Your task to perform on an android device: change keyboard looks Image 0: 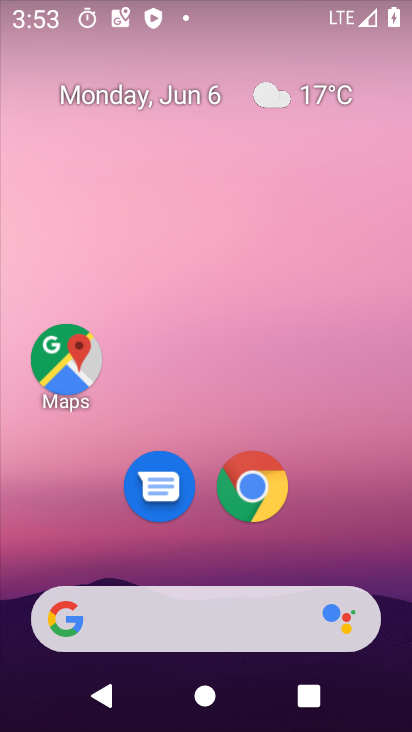
Step 0: drag from (326, 545) to (331, 143)
Your task to perform on an android device: change keyboard looks Image 1: 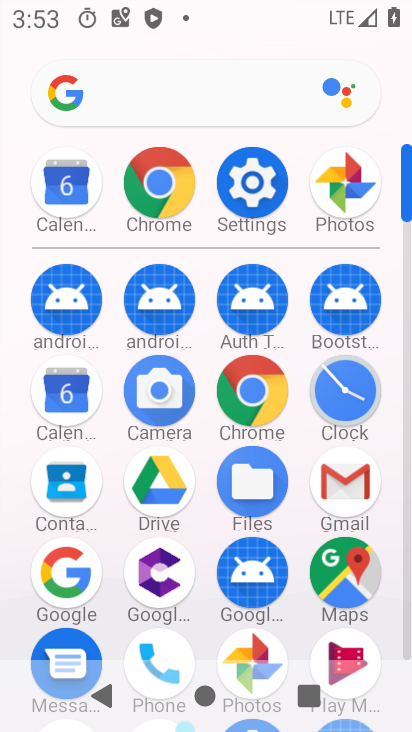
Step 1: click (248, 189)
Your task to perform on an android device: change keyboard looks Image 2: 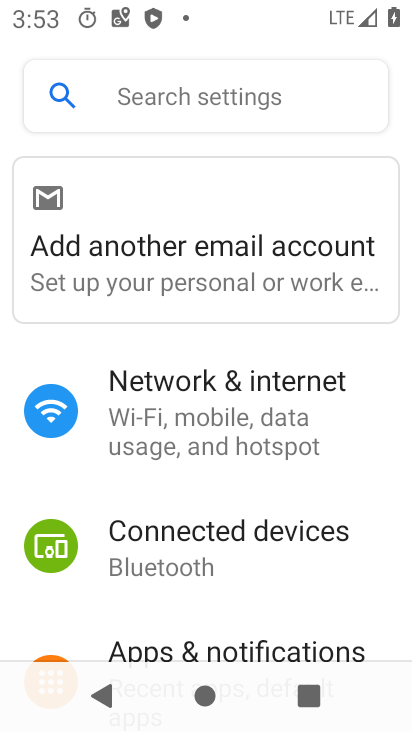
Step 2: drag from (247, 571) to (275, 135)
Your task to perform on an android device: change keyboard looks Image 3: 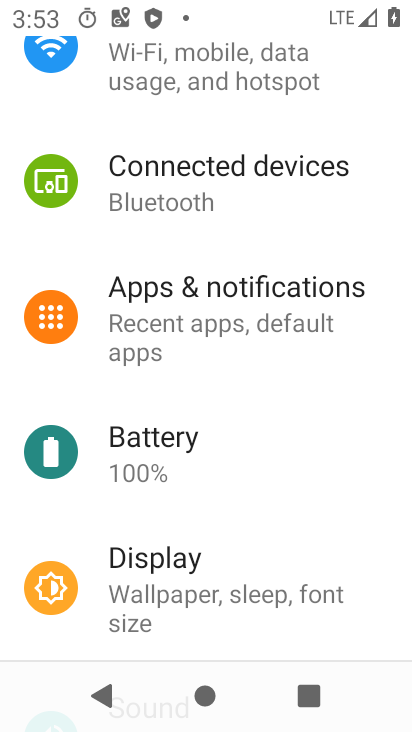
Step 3: drag from (278, 477) to (294, 236)
Your task to perform on an android device: change keyboard looks Image 4: 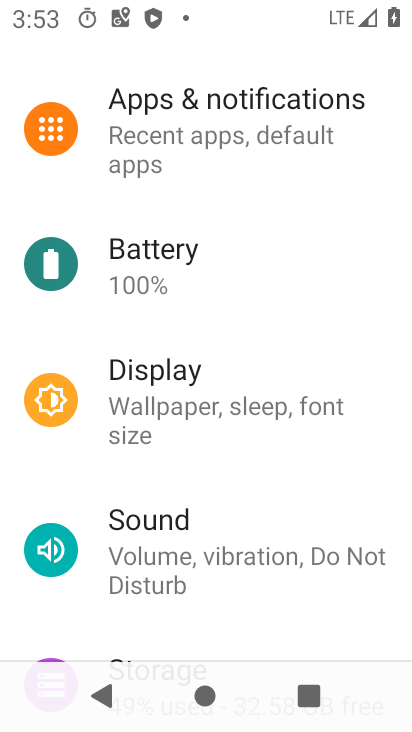
Step 4: drag from (263, 551) to (312, 141)
Your task to perform on an android device: change keyboard looks Image 5: 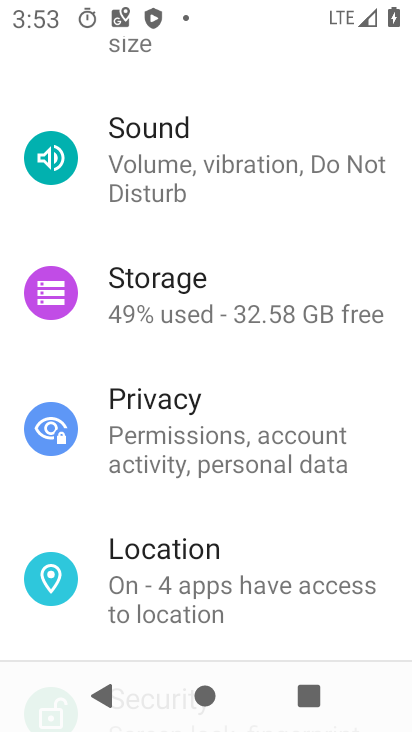
Step 5: drag from (252, 528) to (342, 156)
Your task to perform on an android device: change keyboard looks Image 6: 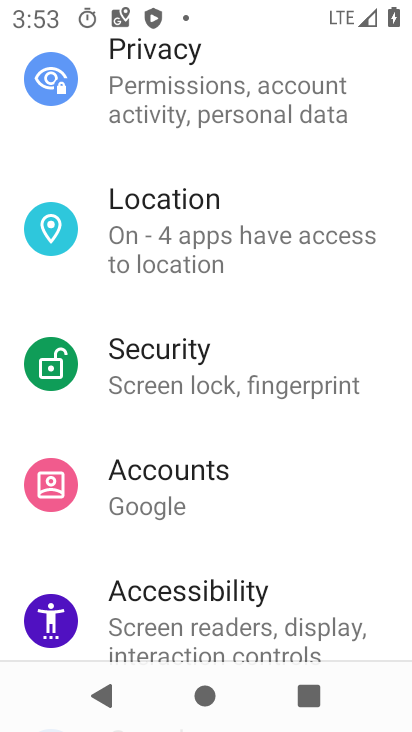
Step 6: drag from (277, 434) to (321, 168)
Your task to perform on an android device: change keyboard looks Image 7: 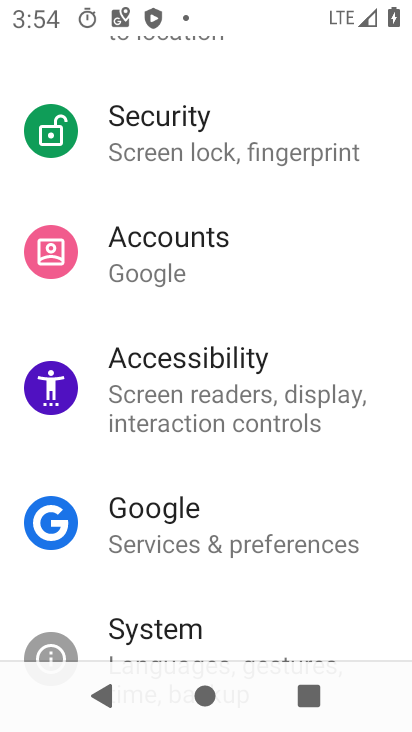
Step 7: drag from (229, 511) to (294, 253)
Your task to perform on an android device: change keyboard looks Image 8: 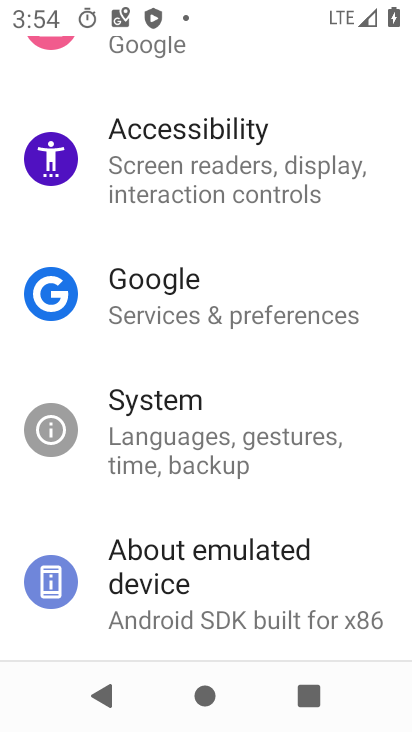
Step 8: drag from (206, 503) to (297, 284)
Your task to perform on an android device: change keyboard looks Image 9: 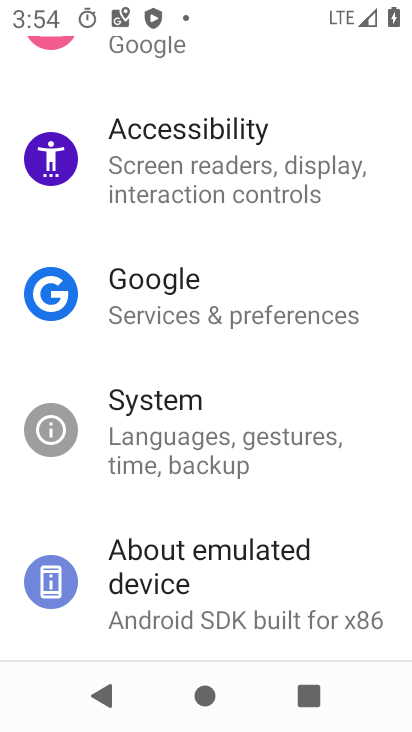
Step 9: drag from (209, 438) to (234, 373)
Your task to perform on an android device: change keyboard looks Image 10: 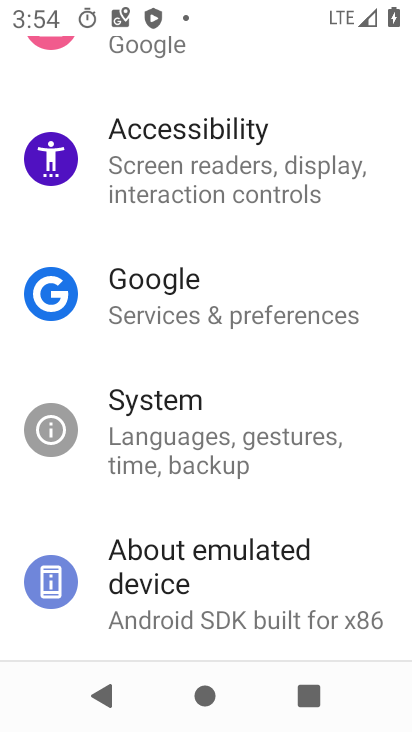
Step 10: click (203, 404)
Your task to perform on an android device: change keyboard looks Image 11: 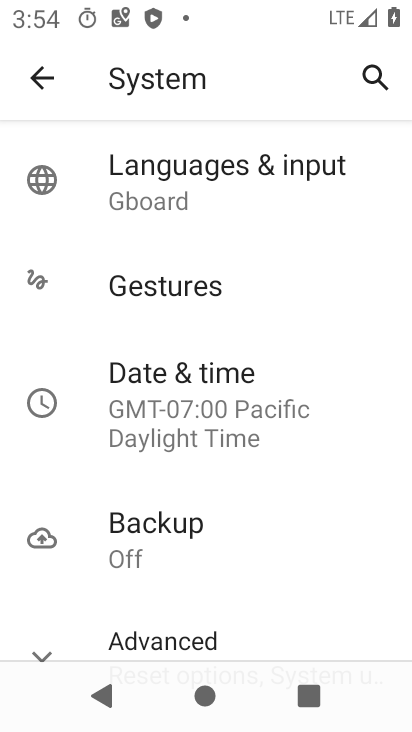
Step 11: click (216, 177)
Your task to perform on an android device: change keyboard looks Image 12: 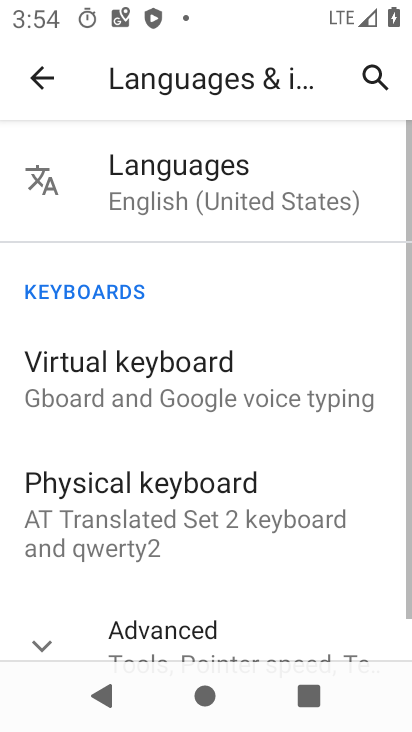
Step 12: click (233, 396)
Your task to perform on an android device: change keyboard looks Image 13: 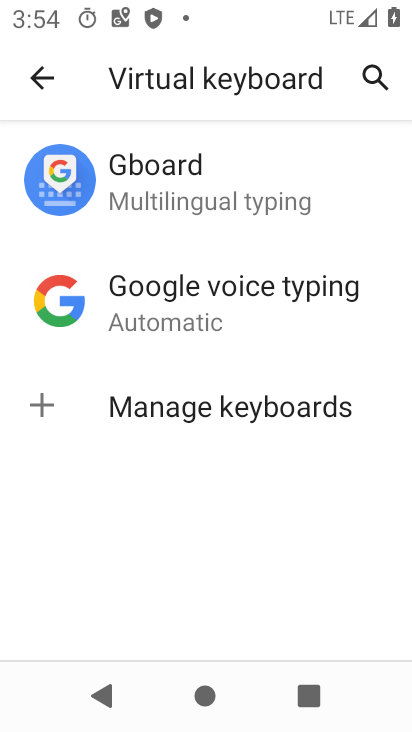
Step 13: click (194, 180)
Your task to perform on an android device: change keyboard looks Image 14: 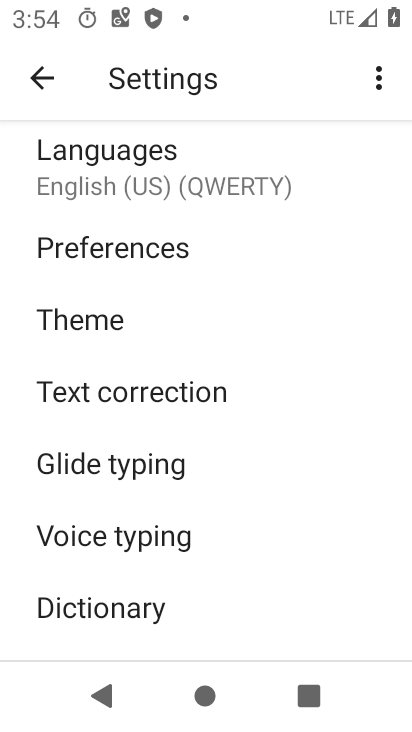
Step 14: click (202, 359)
Your task to perform on an android device: change keyboard looks Image 15: 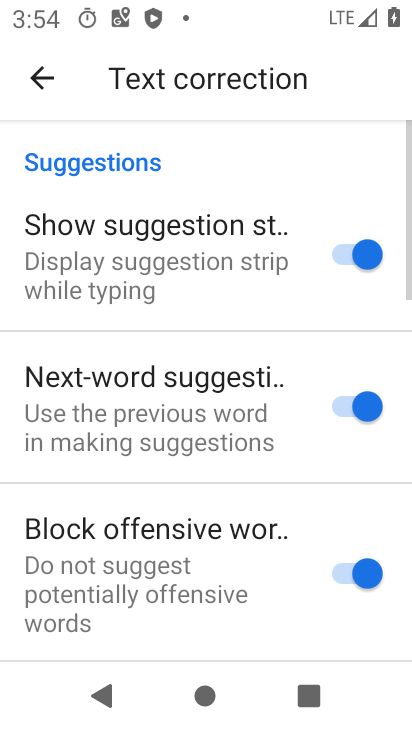
Step 15: click (40, 91)
Your task to perform on an android device: change keyboard looks Image 16: 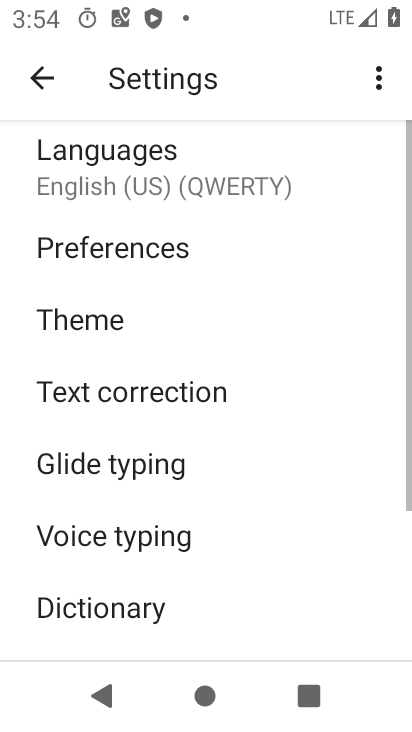
Step 16: click (124, 338)
Your task to perform on an android device: change keyboard looks Image 17: 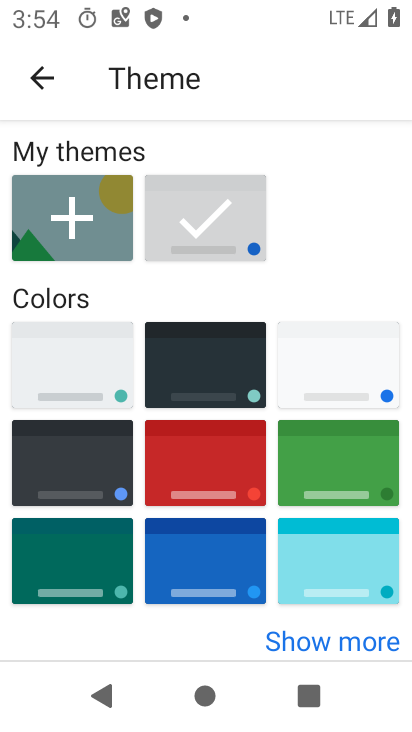
Step 17: click (54, 354)
Your task to perform on an android device: change keyboard looks Image 18: 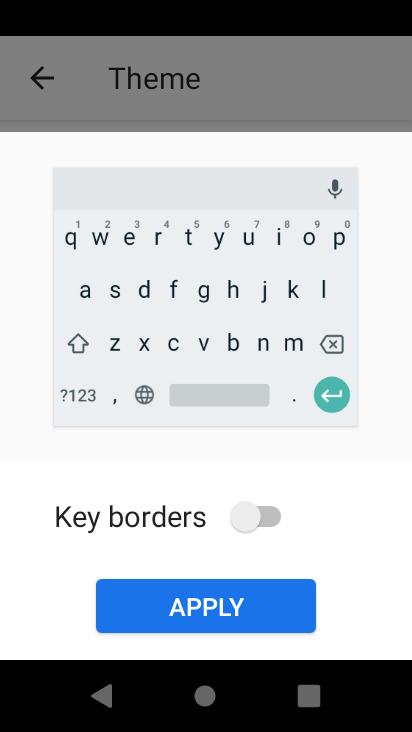
Step 18: click (242, 618)
Your task to perform on an android device: change keyboard looks Image 19: 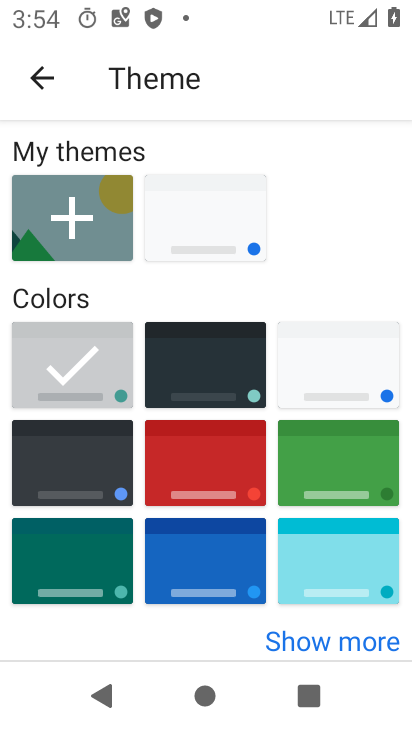
Step 19: task complete